Your task to perform on an android device: change alarm snooze length Image 0: 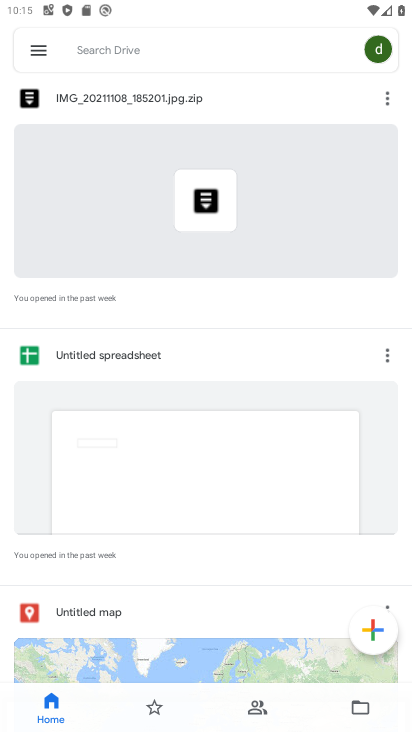
Step 0: press home button
Your task to perform on an android device: change alarm snooze length Image 1: 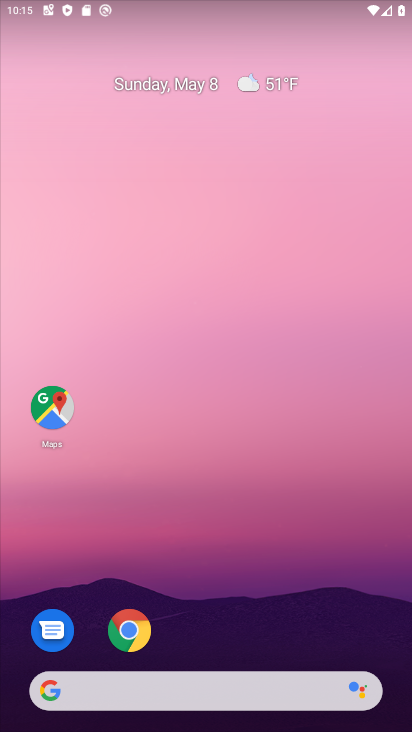
Step 1: drag from (350, 629) to (226, 45)
Your task to perform on an android device: change alarm snooze length Image 2: 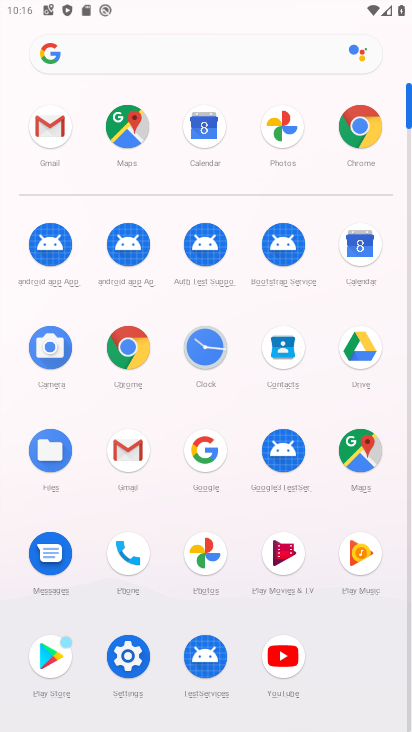
Step 2: click (208, 365)
Your task to perform on an android device: change alarm snooze length Image 3: 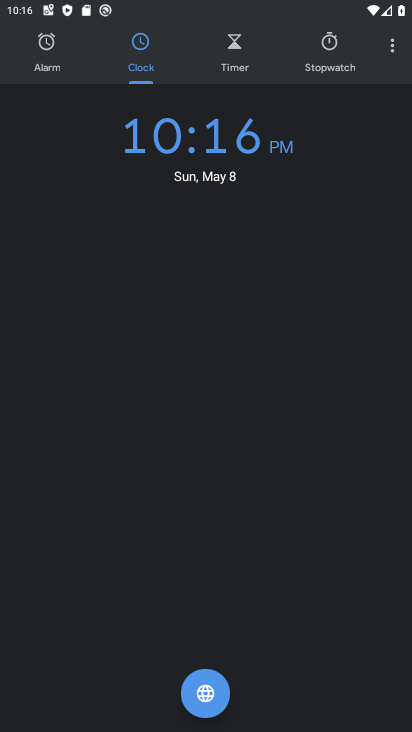
Step 3: click (386, 55)
Your task to perform on an android device: change alarm snooze length Image 4: 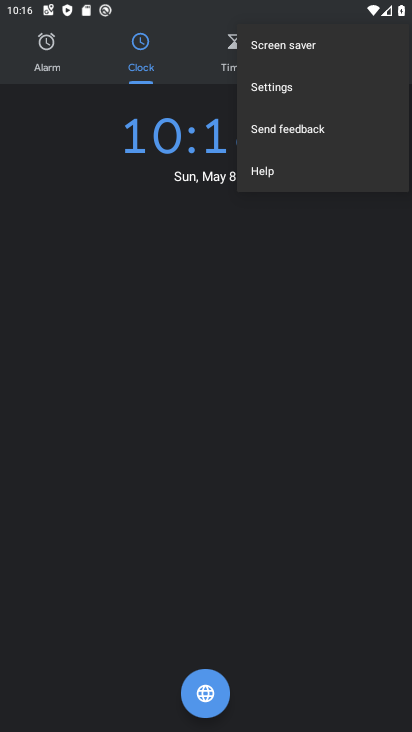
Step 4: click (250, 91)
Your task to perform on an android device: change alarm snooze length Image 5: 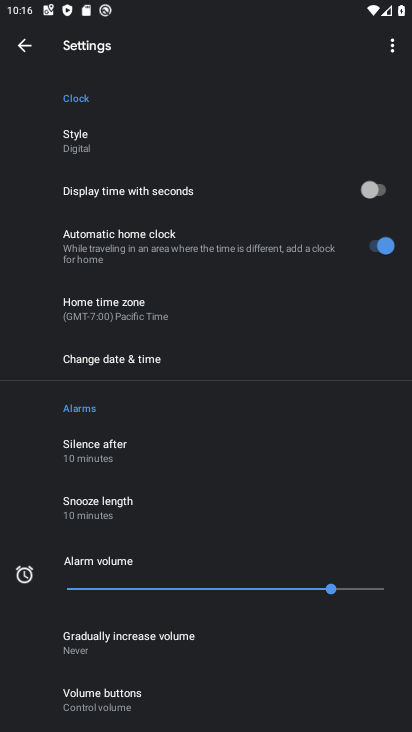
Step 5: click (130, 511)
Your task to perform on an android device: change alarm snooze length Image 6: 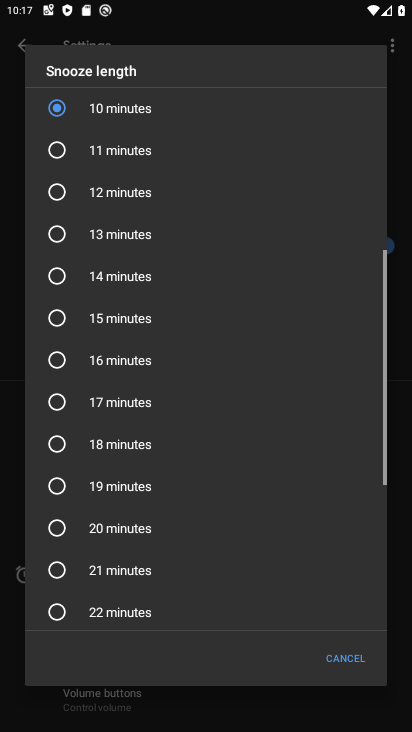
Step 6: click (145, 190)
Your task to perform on an android device: change alarm snooze length Image 7: 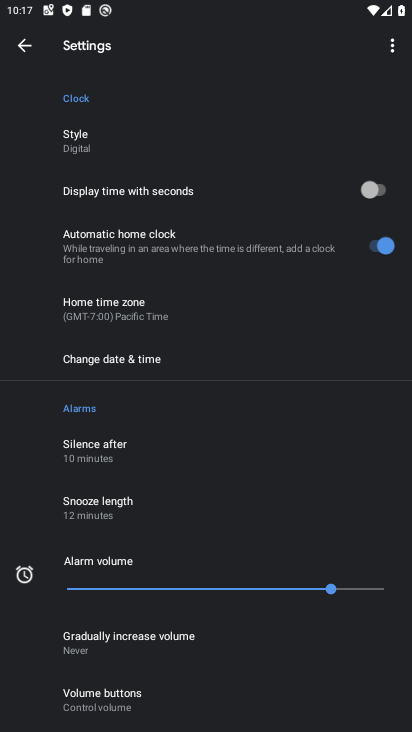
Step 7: task complete